Your task to perform on an android device: turn on priority inbox in the gmail app Image 0: 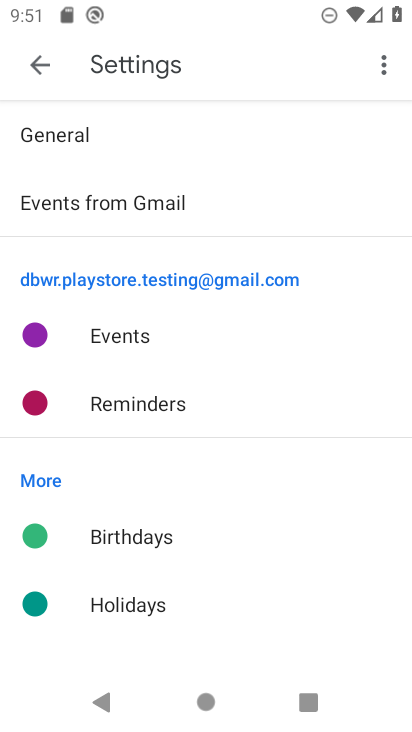
Step 0: press home button
Your task to perform on an android device: turn on priority inbox in the gmail app Image 1: 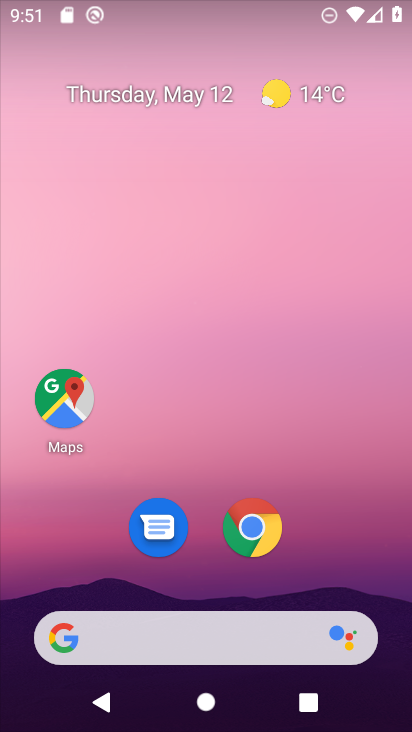
Step 1: drag from (342, 561) to (342, 190)
Your task to perform on an android device: turn on priority inbox in the gmail app Image 2: 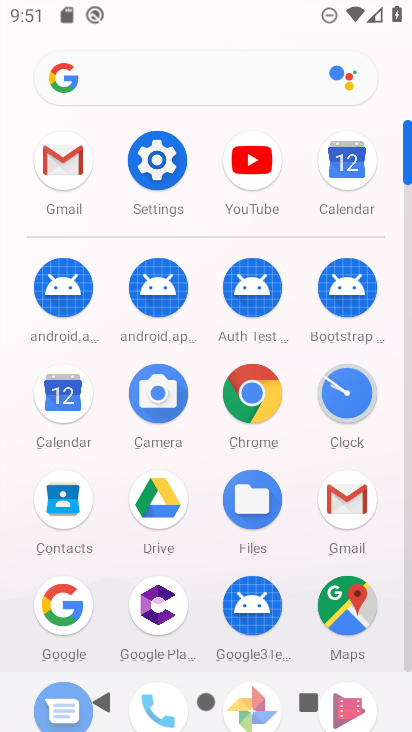
Step 2: click (351, 525)
Your task to perform on an android device: turn on priority inbox in the gmail app Image 3: 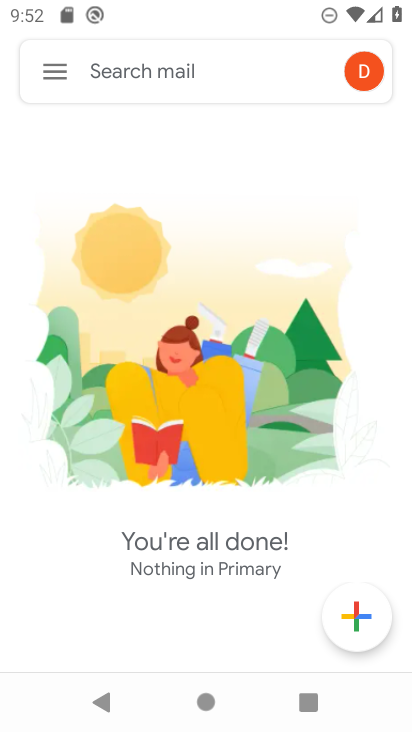
Step 3: click (41, 79)
Your task to perform on an android device: turn on priority inbox in the gmail app Image 4: 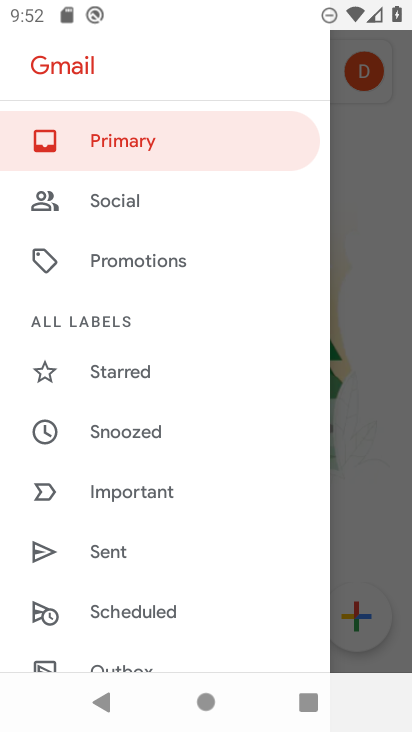
Step 4: drag from (168, 616) to (241, 286)
Your task to perform on an android device: turn on priority inbox in the gmail app Image 5: 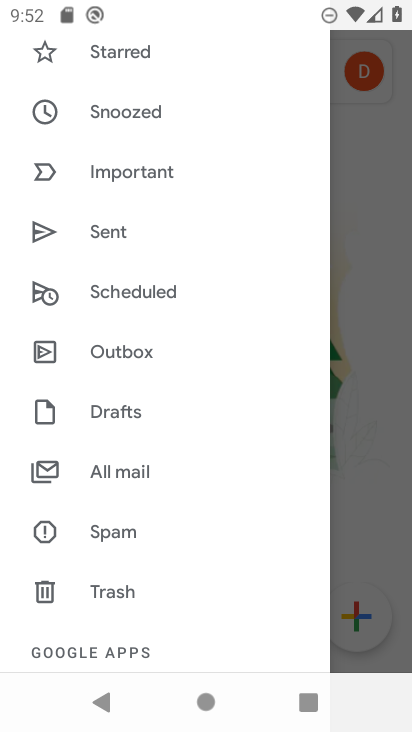
Step 5: drag from (229, 608) to (263, 257)
Your task to perform on an android device: turn on priority inbox in the gmail app Image 6: 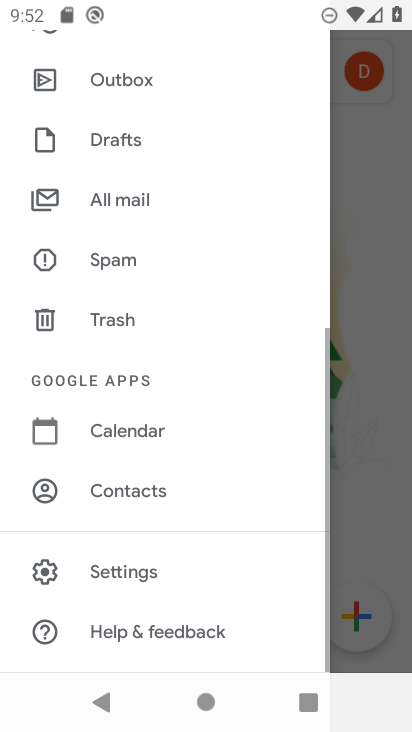
Step 6: click (203, 560)
Your task to perform on an android device: turn on priority inbox in the gmail app Image 7: 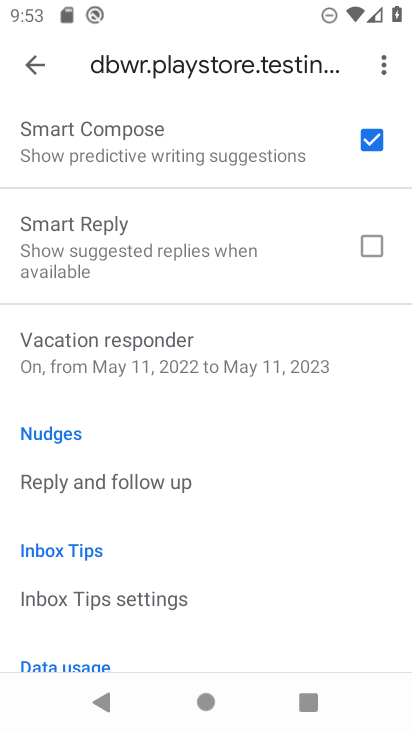
Step 7: drag from (202, 340) to (202, 711)
Your task to perform on an android device: turn on priority inbox in the gmail app Image 8: 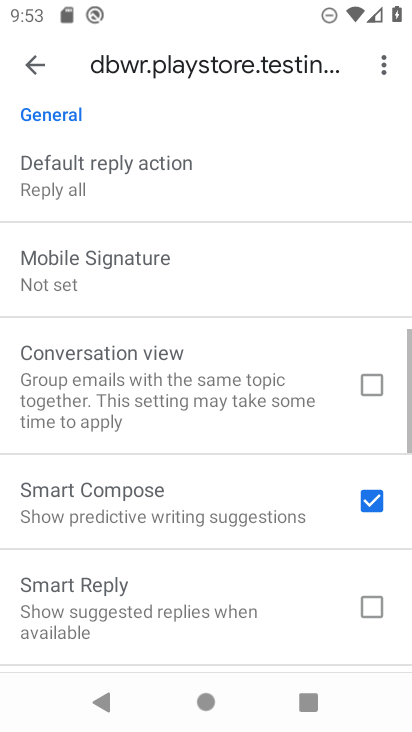
Step 8: drag from (276, 263) to (255, 558)
Your task to perform on an android device: turn on priority inbox in the gmail app Image 9: 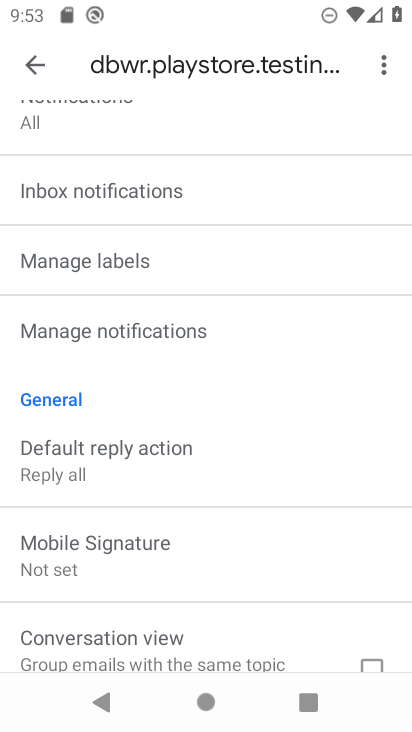
Step 9: drag from (197, 293) to (136, 641)
Your task to perform on an android device: turn on priority inbox in the gmail app Image 10: 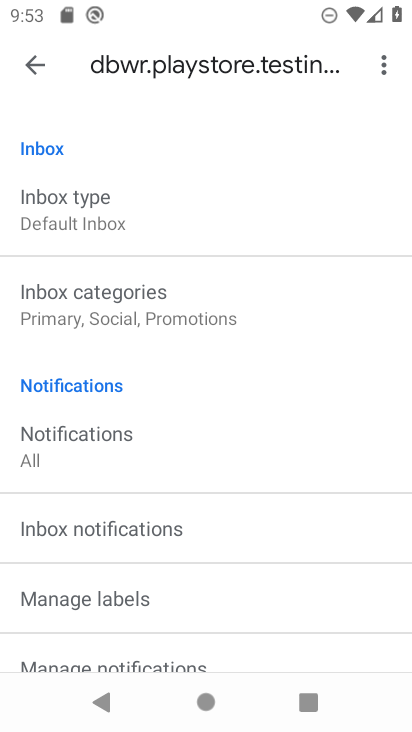
Step 10: click (253, 237)
Your task to perform on an android device: turn on priority inbox in the gmail app Image 11: 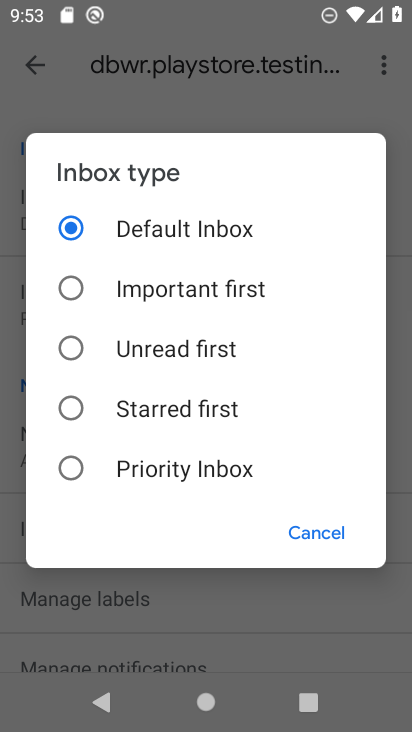
Step 11: click (191, 474)
Your task to perform on an android device: turn on priority inbox in the gmail app Image 12: 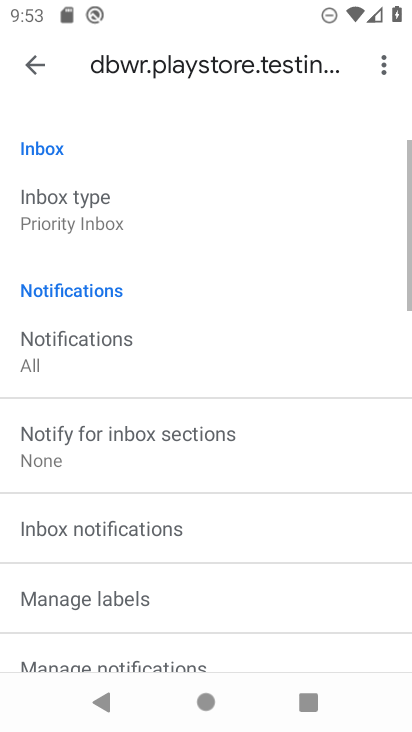
Step 12: task complete